Your task to perform on an android device: turn off location Image 0: 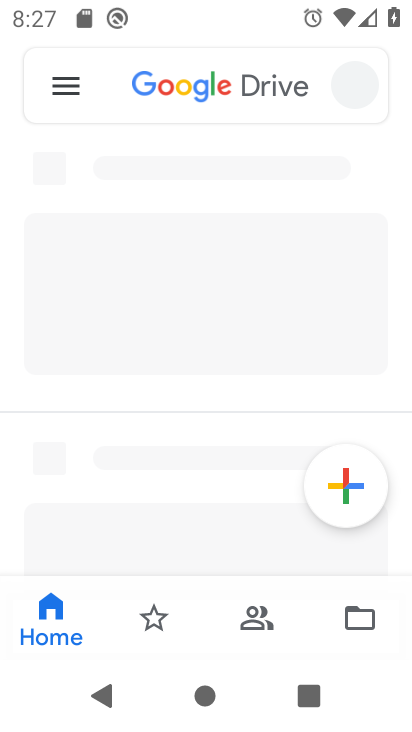
Step 0: drag from (205, 546) to (210, 42)
Your task to perform on an android device: turn off location Image 1: 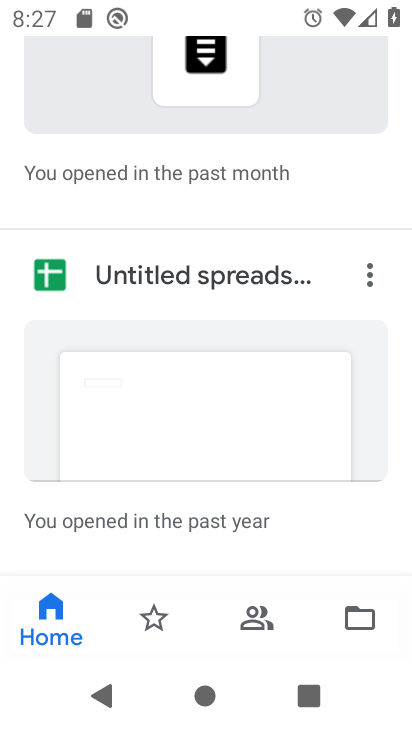
Step 1: press home button
Your task to perform on an android device: turn off location Image 2: 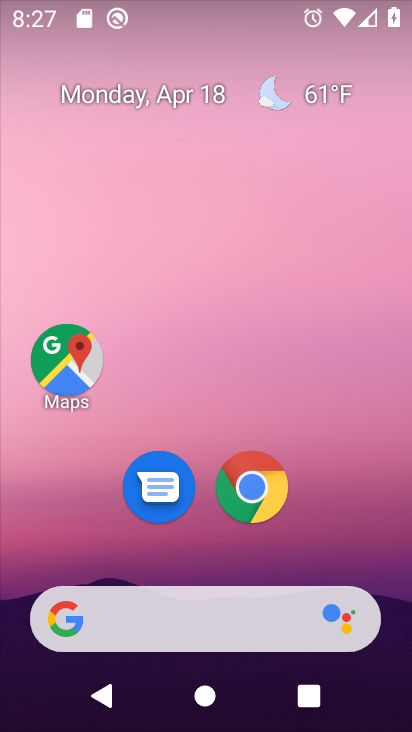
Step 2: drag from (206, 543) to (207, 90)
Your task to perform on an android device: turn off location Image 3: 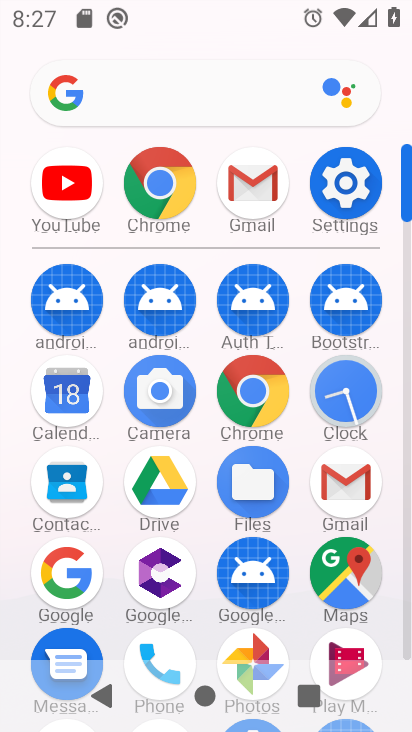
Step 3: click (344, 176)
Your task to perform on an android device: turn off location Image 4: 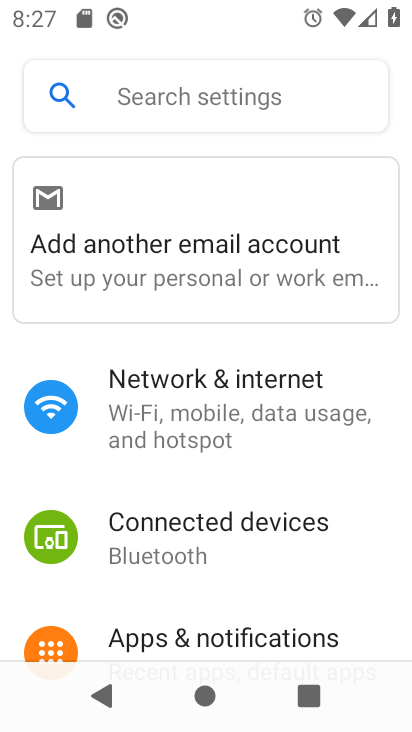
Step 4: drag from (244, 613) to (237, 95)
Your task to perform on an android device: turn off location Image 5: 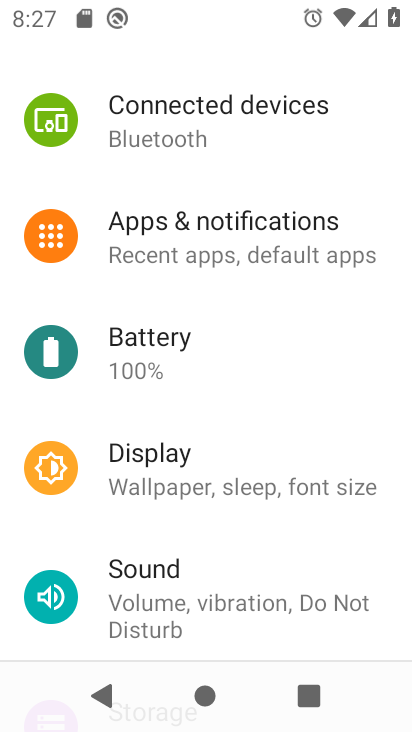
Step 5: drag from (218, 618) to (250, 66)
Your task to perform on an android device: turn off location Image 6: 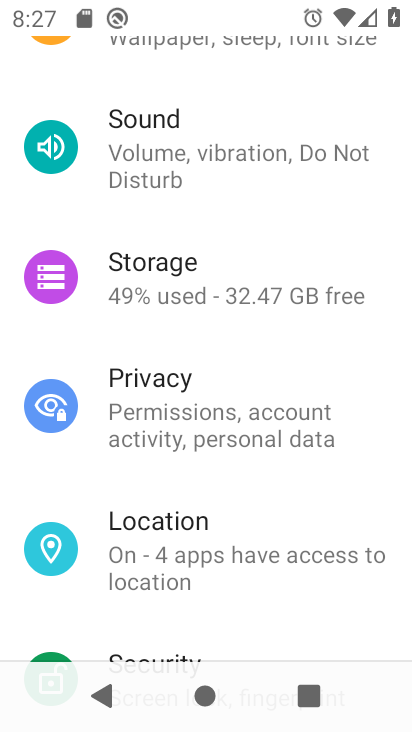
Step 6: click (217, 526)
Your task to perform on an android device: turn off location Image 7: 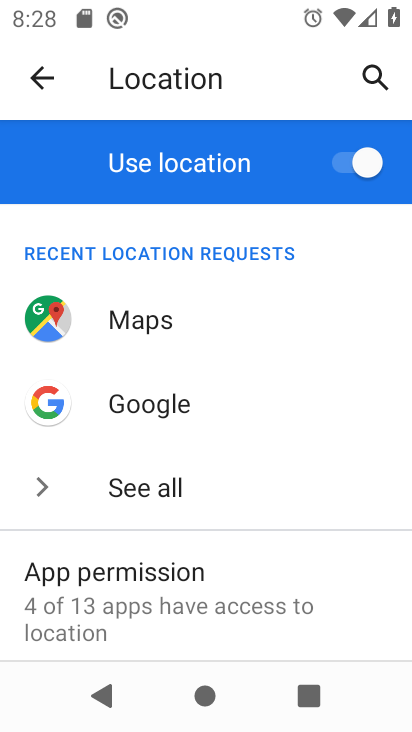
Step 7: click (349, 162)
Your task to perform on an android device: turn off location Image 8: 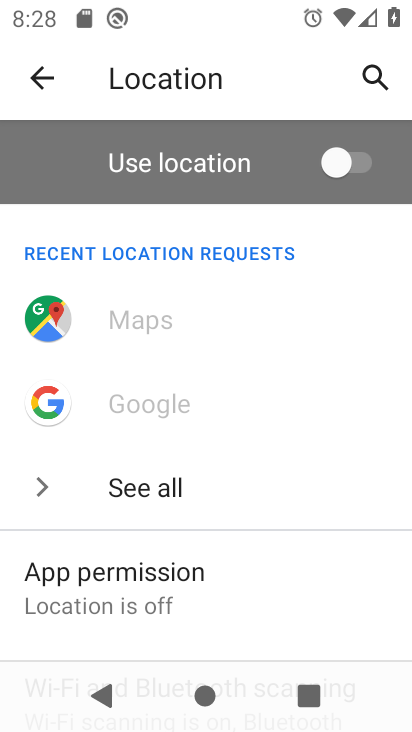
Step 8: task complete